Your task to perform on an android device: Go to internet settings Image 0: 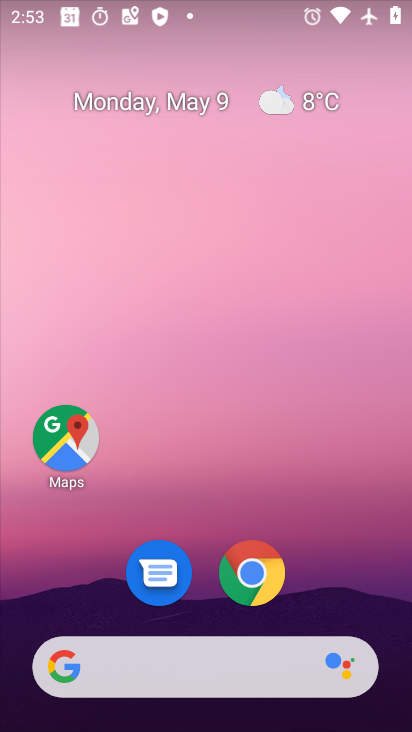
Step 0: drag from (175, 702) to (338, 242)
Your task to perform on an android device: Go to internet settings Image 1: 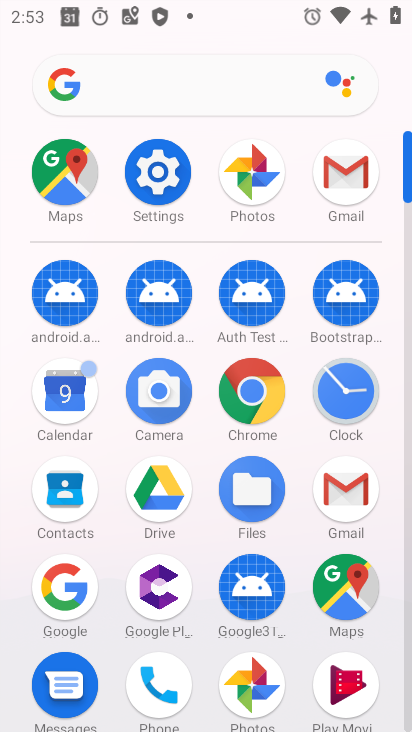
Step 1: click (169, 174)
Your task to perform on an android device: Go to internet settings Image 2: 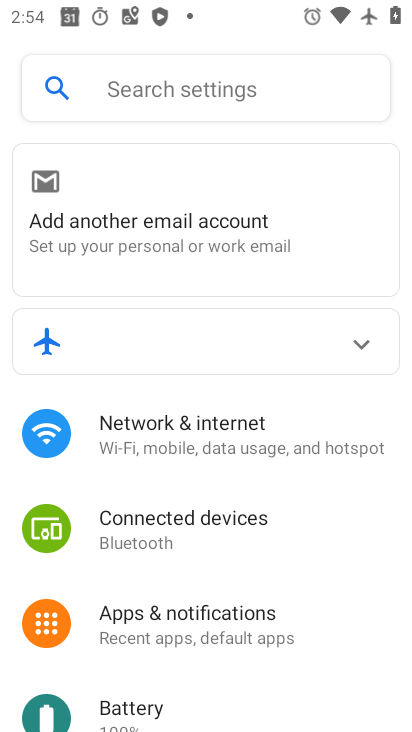
Step 2: click (165, 428)
Your task to perform on an android device: Go to internet settings Image 3: 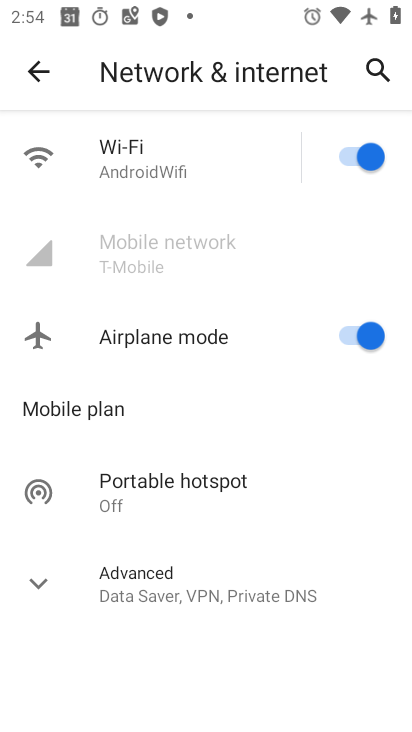
Step 3: task complete